Your task to perform on an android device: turn on notifications settings in the gmail app Image 0: 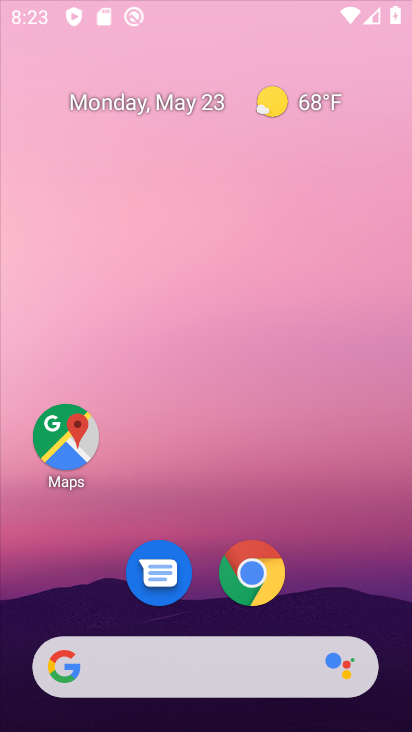
Step 0: press home button
Your task to perform on an android device: turn on notifications settings in the gmail app Image 1: 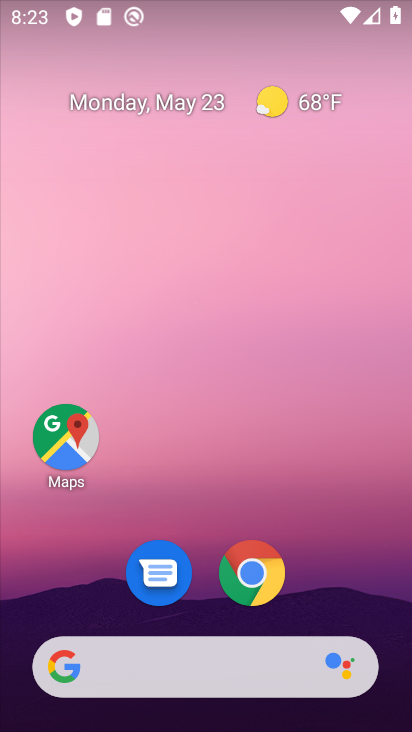
Step 1: drag from (204, 605) to (207, 411)
Your task to perform on an android device: turn on notifications settings in the gmail app Image 2: 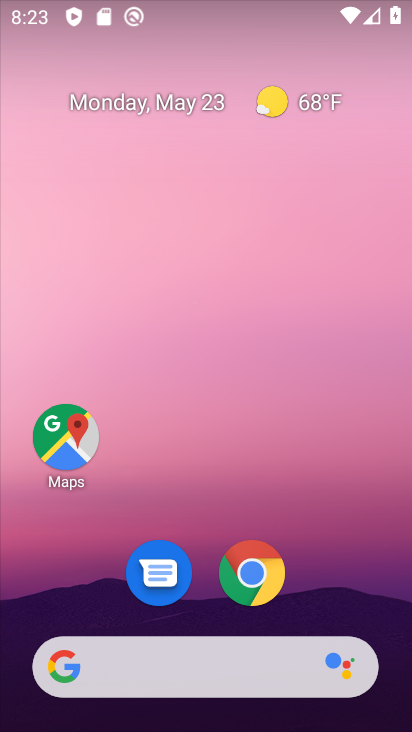
Step 2: drag from (205, 616) to (212, 180)
Your task to perform on an android device: turn on notifications settings in the gmail app Image 3: 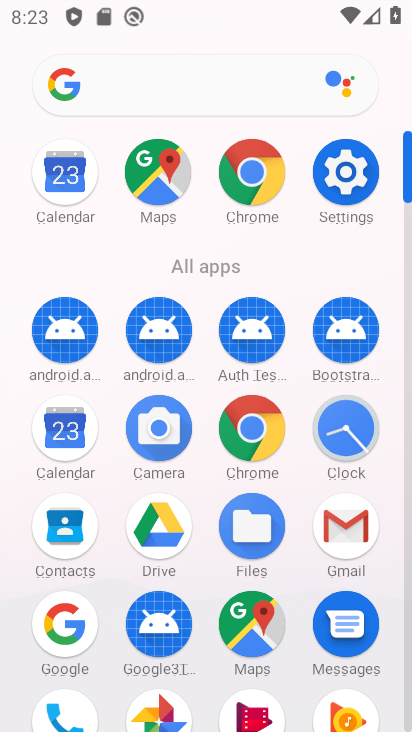
Step 3: click (350, 536)
Your task to perform on an android device: turn on notifications settings in the gmail app Image 4: 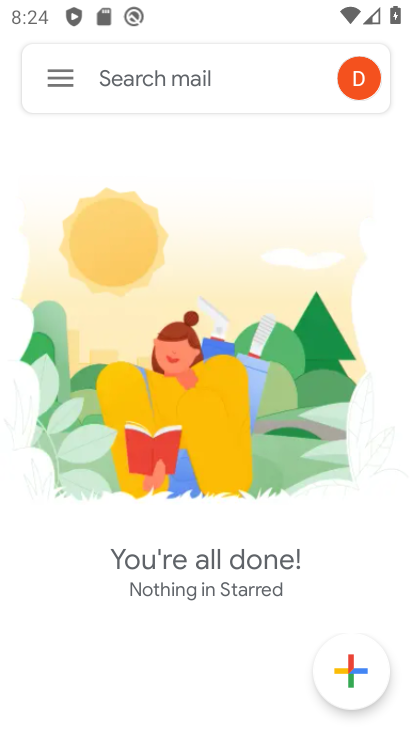
Step 4: click (52, 75)
Your task to perform on an android device: turn on notifications settings in the gmail app Image 5: 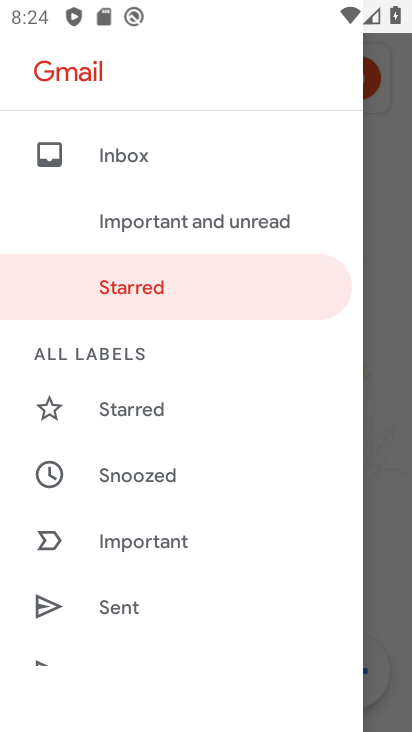
Step 5: drag from (162, 577) to (176, 100)
Your task to perform on an android device: turn on notifications settings in the gmail app Image 6: 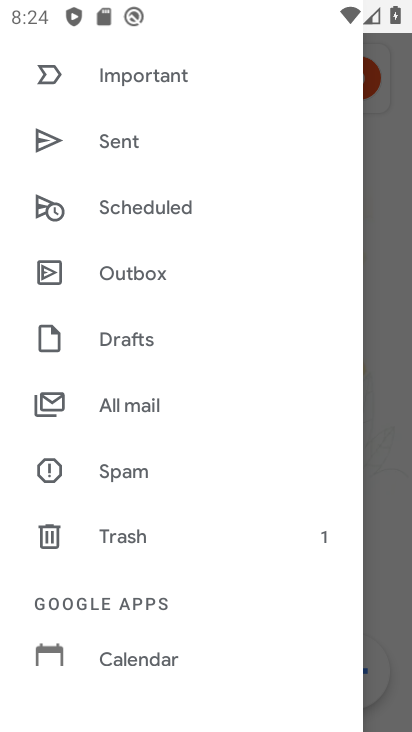
Step 6: drag from (165, 609) to (177, 87)
Your task to perform on an android device: turn on notifications settings in the gmail app Image 7: 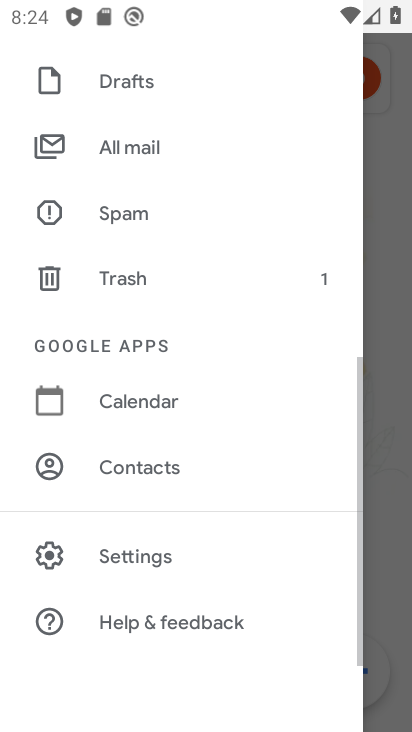
Step 7: click (179, 550)
Your task to perform on an android device: turn on notifications settings in the gmail app Image 8: 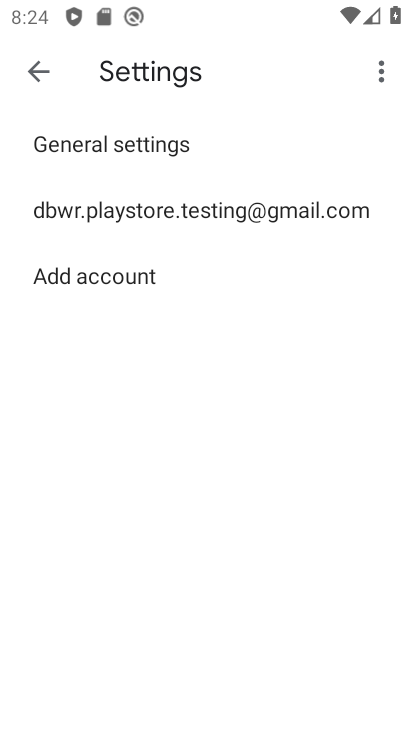
Step 8: click (208, 134)
Your task to perform on an android device: turn on notifications settings in the gmail app Image 9: 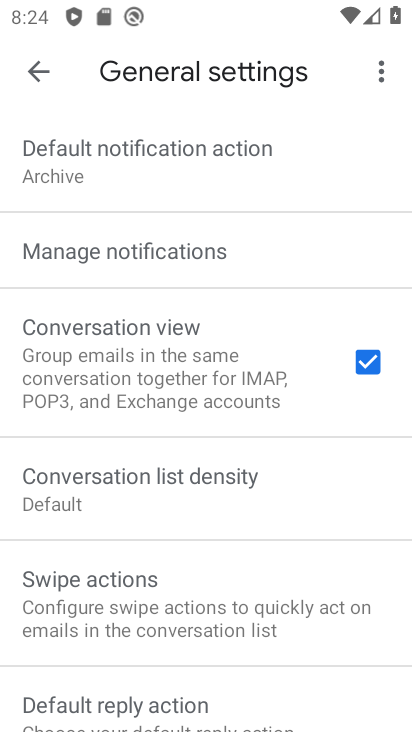
Step 9: click (243, 240)
Your task to perform on an android device: turn on notifications settings in the gmail app Image 10: 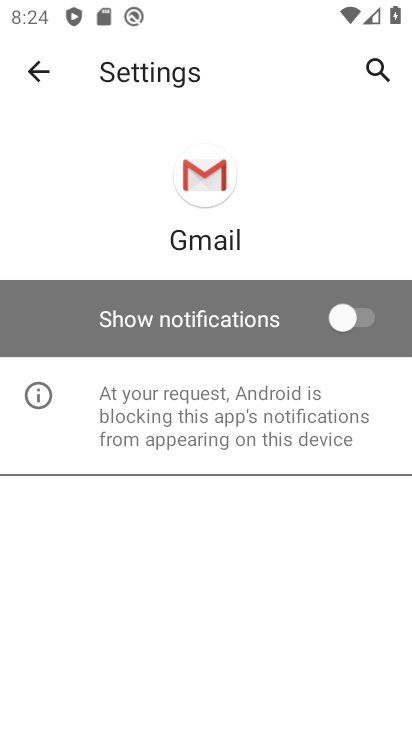
Step 10: click (352, 315)
Your task to perform on an android device: turn on notifications settings in the gmail app Image 11: 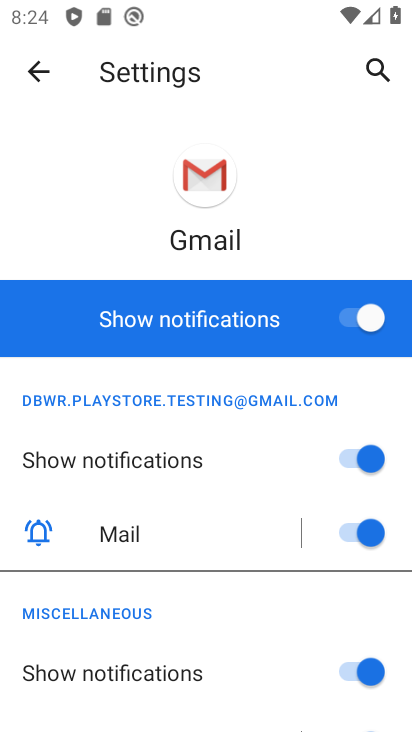
Step 11: task complete